Your task to perform on an android device: Go to Android settings Image 0: 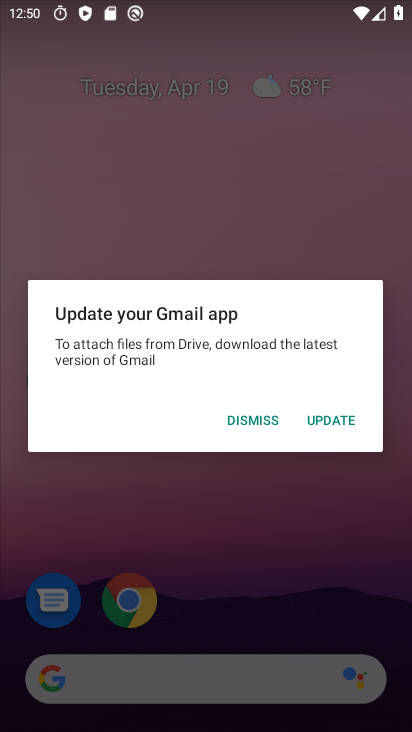
Step 0: press home button
Your task to perform on an android device: Go to Android settings Image 1: 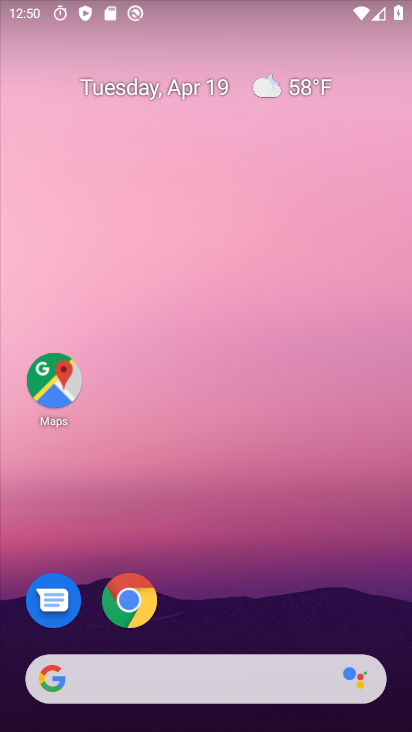
Step 1: drag from (294, 712) to (190, 355)
Your task to perform on an android device: Go to Android settings Image 2: 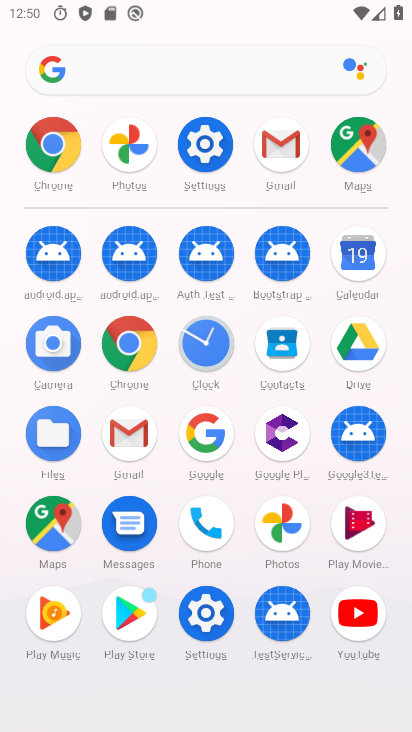
Step 2: click (219, 605)
Your task to perform on an android device: Go to Android settings Image 3: 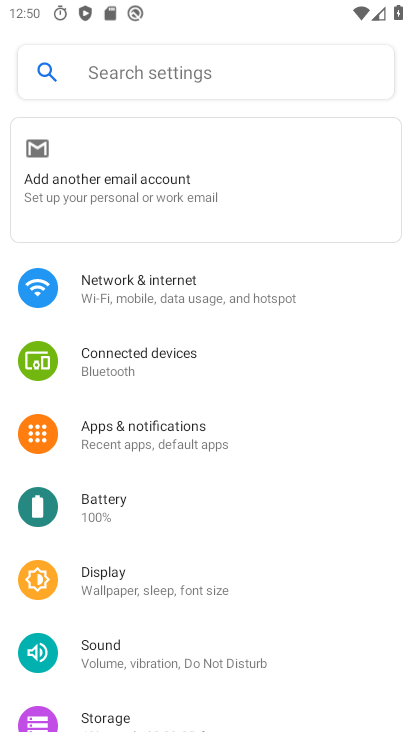
Step 3: click (131, 84)
Your task to perform on an android device: Go to Android settings Image 4: 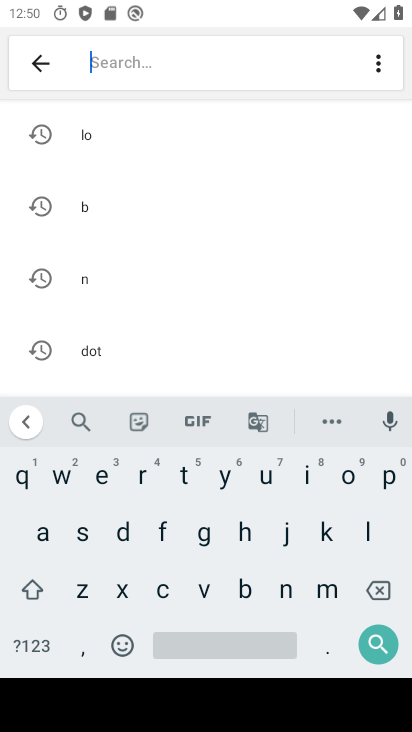
Step 4: click (48, 531)
Your task to perform on an android device: Go to Android settings Image 5: 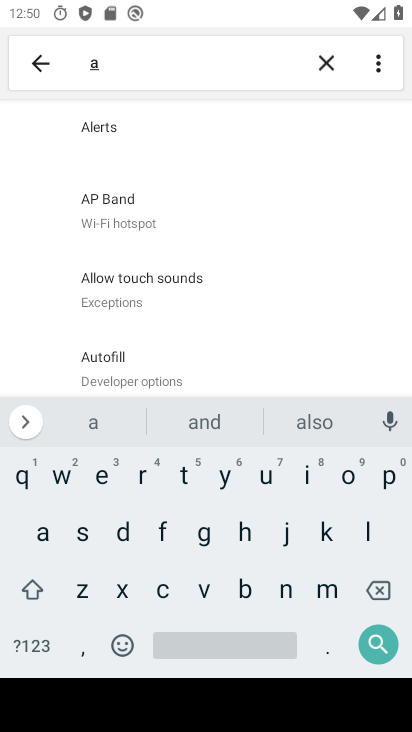
Step 5: click (285, 596)
Your task to perform on an android device: Go to Android settings Image 6: 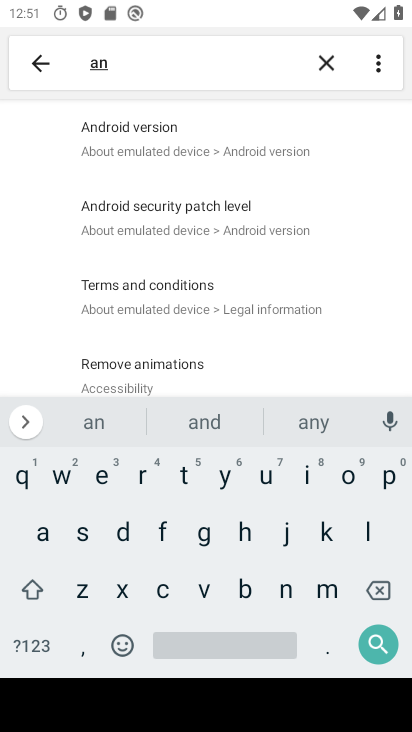
Step 6: click (146, 155)
Your task to perform on an android device: Go to Android settings Image 7: 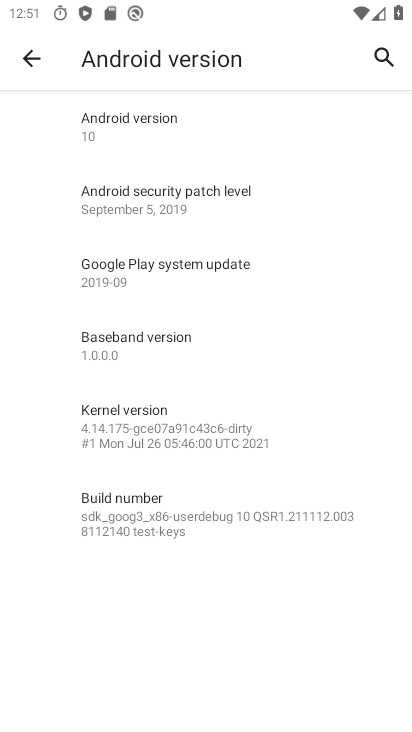
Step 7: click (134, 141)
Your task to perform on an android device: Go to Android settings Image 8: 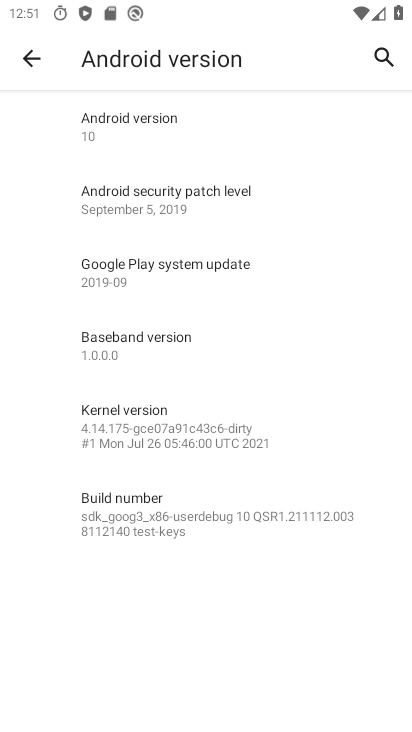
Step 8: task complete